Your task to perform on an android device: Search for vegetarian restaurants on Maps Image 0: 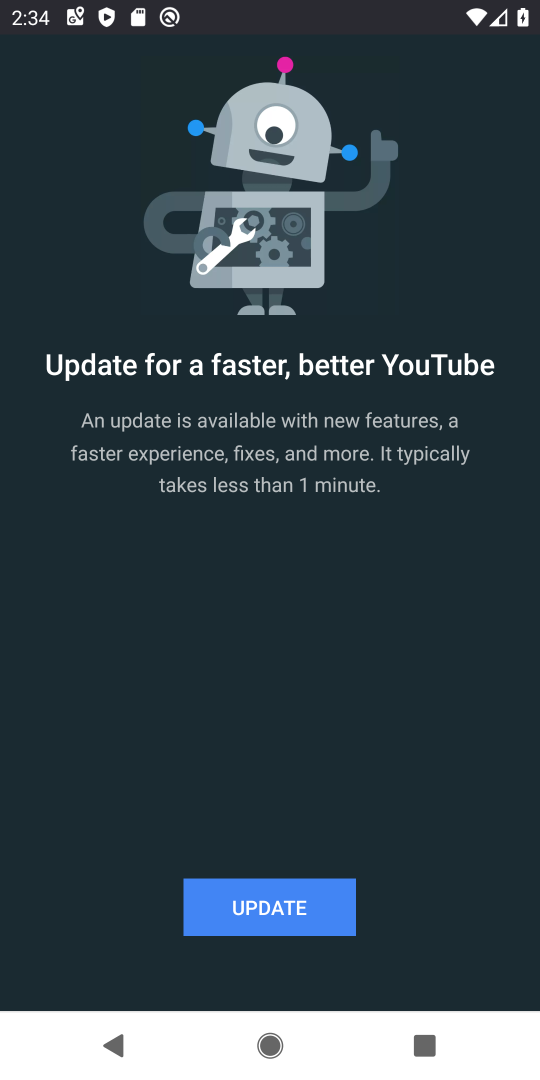
Step 0: press home button
Your task to perform on an android device: Search for vegetarian restaurants on Maps Image 1: 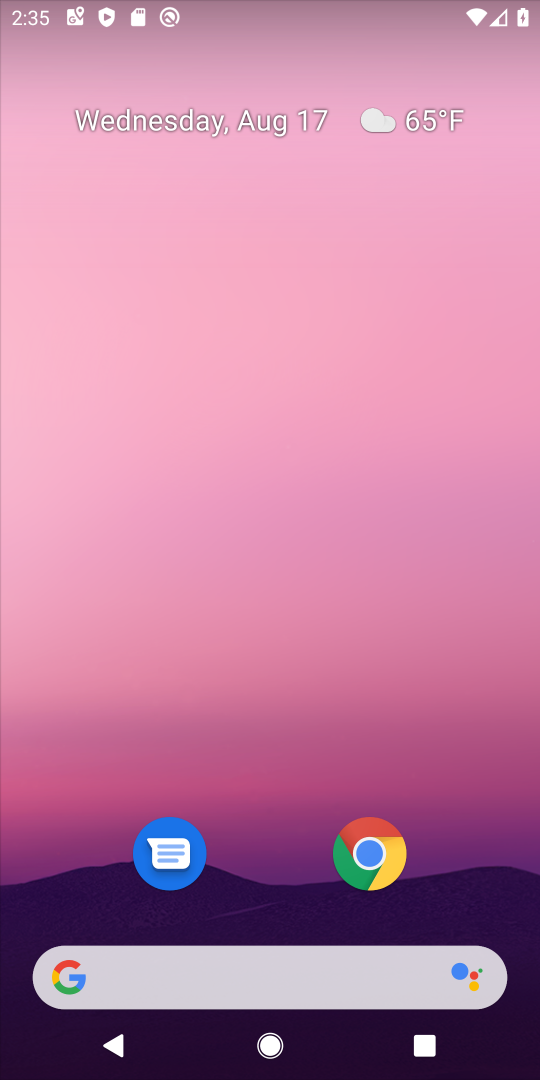
Step 1: drag from (503, 880) to (494, 89)
Your task to perform on an android device: Search for vegetarian restaurants on Maps Image 2: 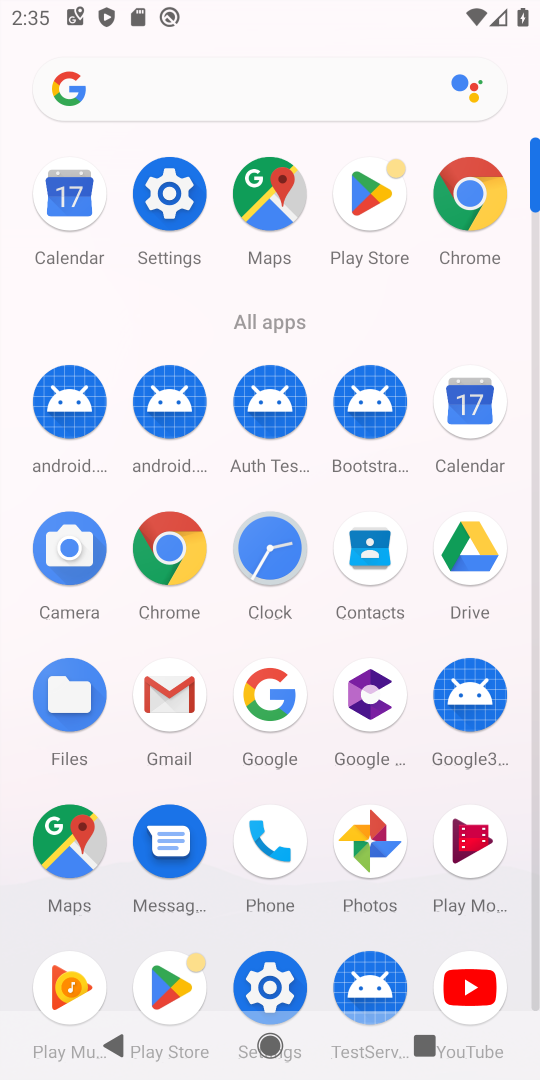
Step 2: click (58, 846)
Your task to perform on an android device: Search for vegetarian restaurants on Maps Image 3: 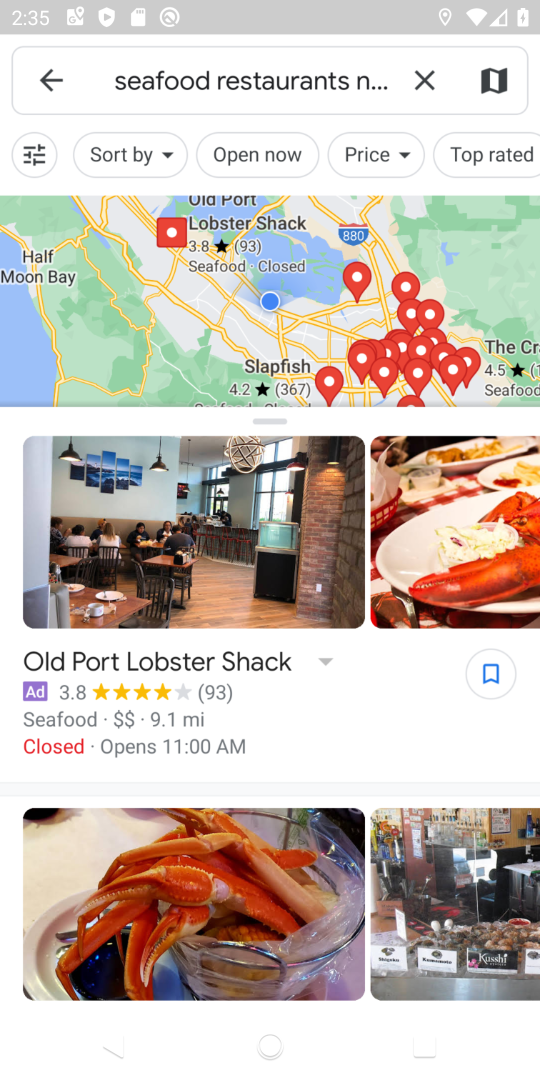
Step 3: click (423, 66)
Your task to perform on an android device: Search for vegetarian restaurants on Maps Image 4: 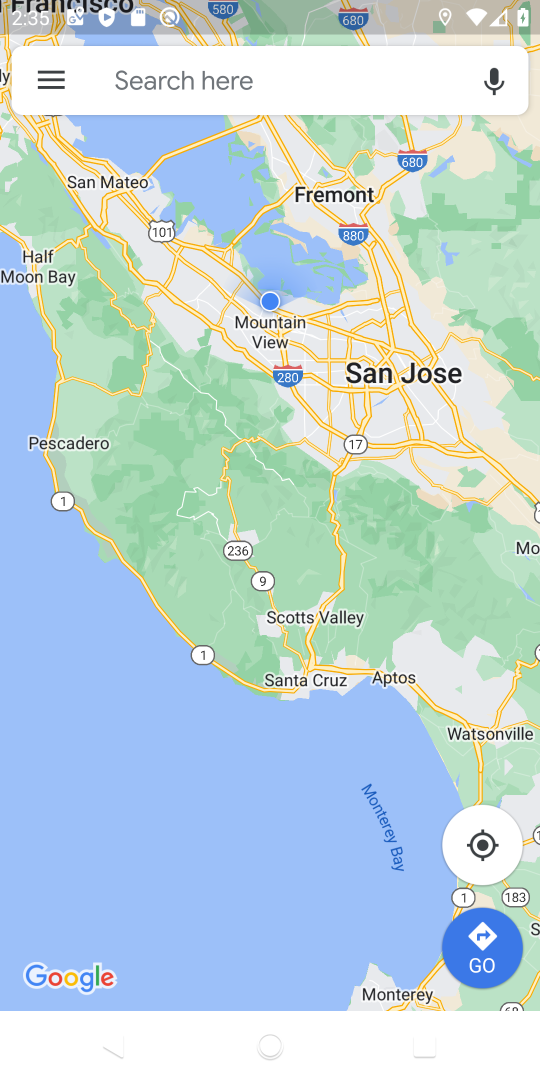
Step 4: click (380, 94)
Your task to perform on an android device: Search for vegetarian restaurants on Maps Image 5: 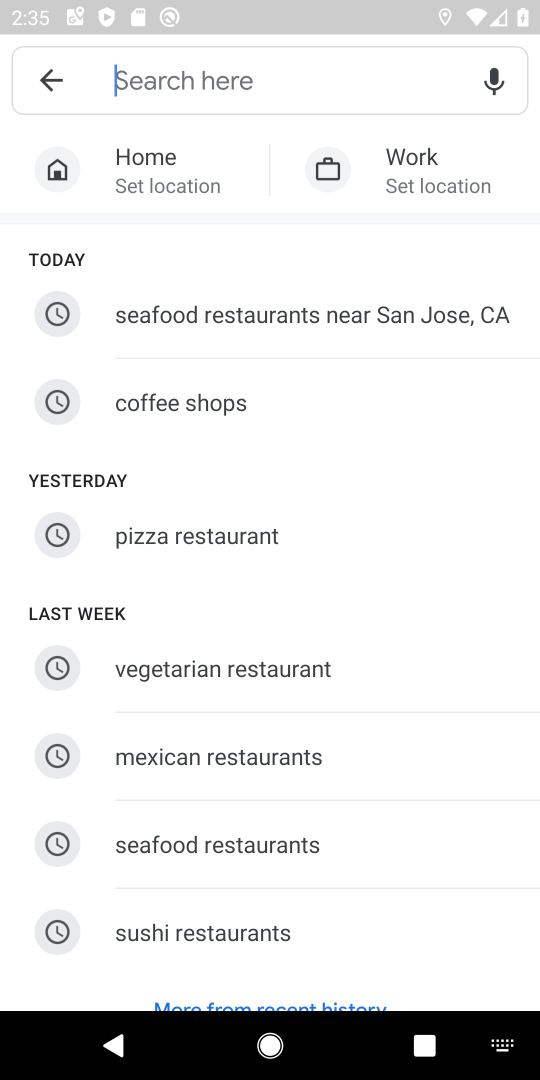
Step 5: type "vegetarian restaurants"
Your task to perform on an android device: Search for vegetarian restaurants on Maps Image 6: 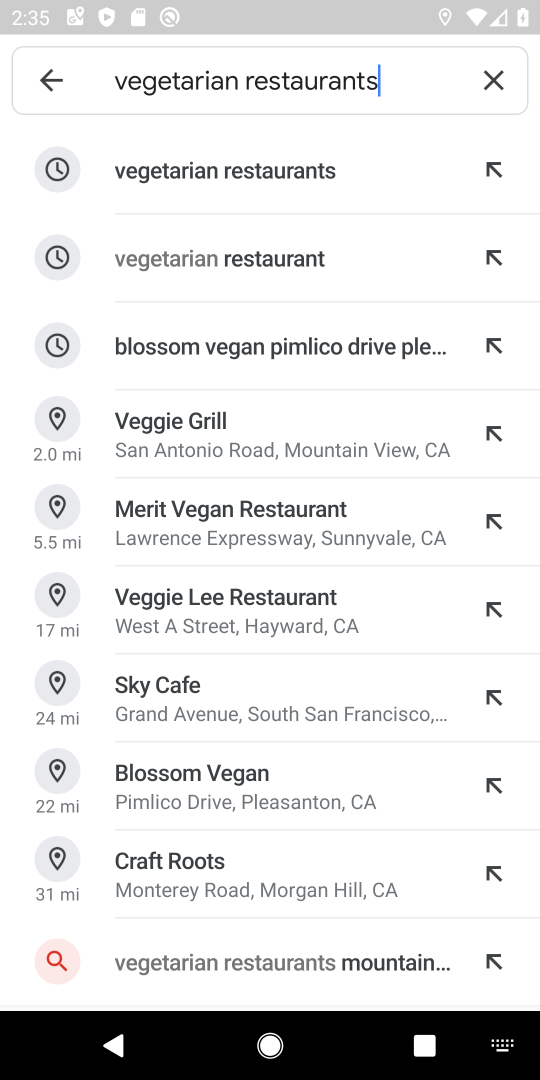
Step 6: click (308, 159)
Your task to perform on an android device: Search for vegetarian restaurants on Maps Image 7: 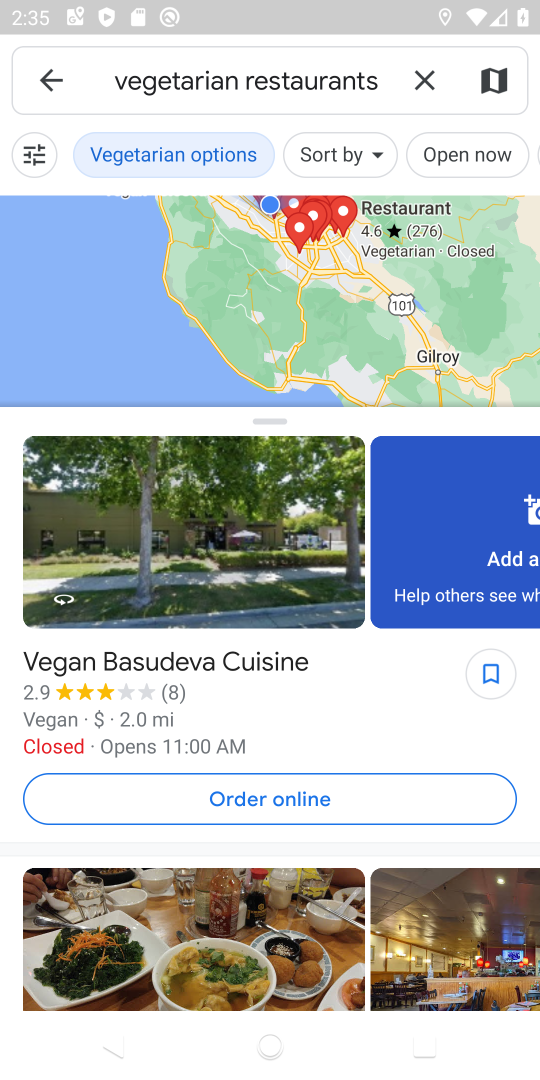
Step 7: task complete